Your task to perform on an android device: Go to settings Image 0: 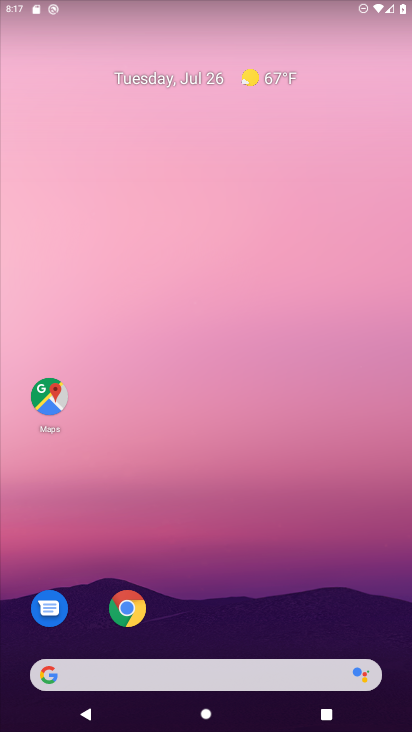
Step 0: drag from (206, 638) to (341, 86)
Your task to perform on an android device: Go to settings Image 1: 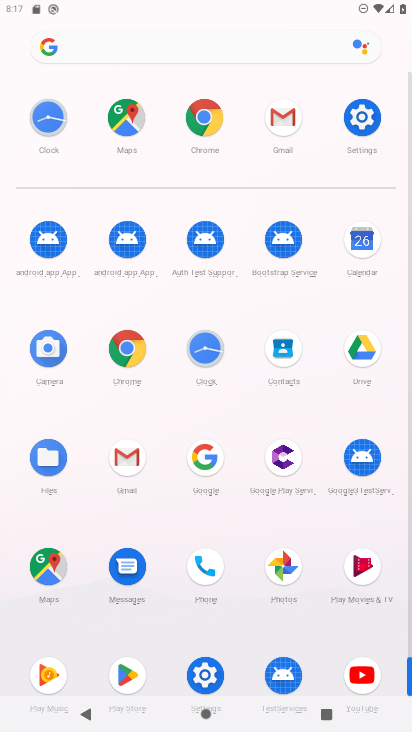
Step 1: click (213, 664)
Your task to perform on an android device: Go to settings Image 2: 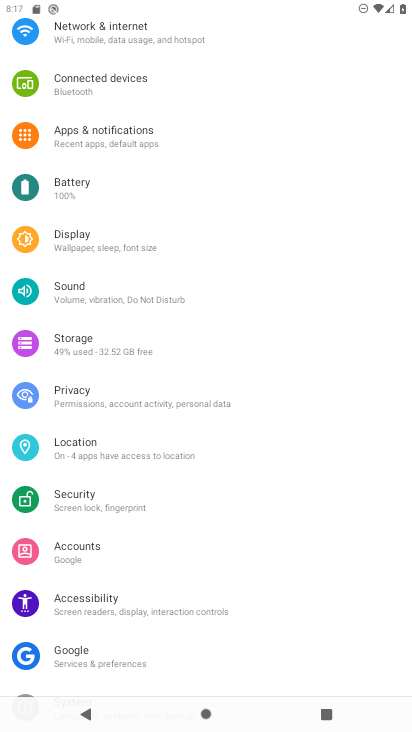
Step 2: task complete